Your task to perform on an android device: Show the shopping cart on ebay. Add razer nari to the cart on ebay Image 0: 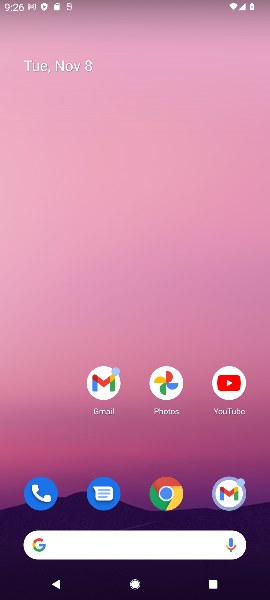
Step 0: click (171, 496)
Your task to perform on an android device: Show the shopping cart on ebay. Add razer nari to the cart on ebay Image 1: 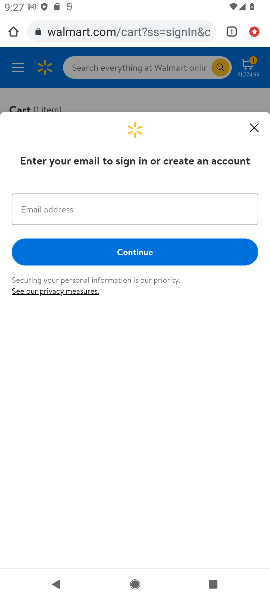
Step 1: click (112, 34)
Your task to perform on an android device: Show the shopping cart on ebay. Add razer nari to the cart on ebay Image 2: 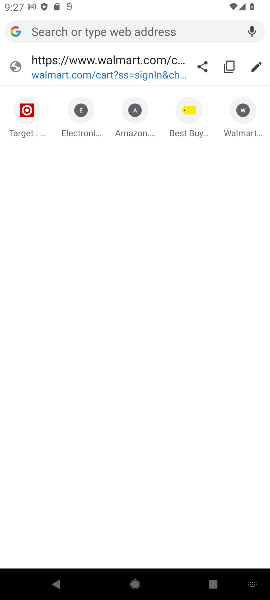
Step 2: type "ebay.com"
Your task to perform on an android device: Show the shopping cart on ebay. Add razer nari to the cart on ebay Image 3: 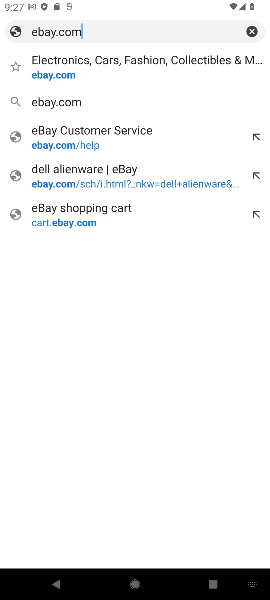
Step 3: click (54, 78)
Your task to perform on an android device: Show the shopping cart on ebay. Add razer nari to the cart on ebay Image 4: 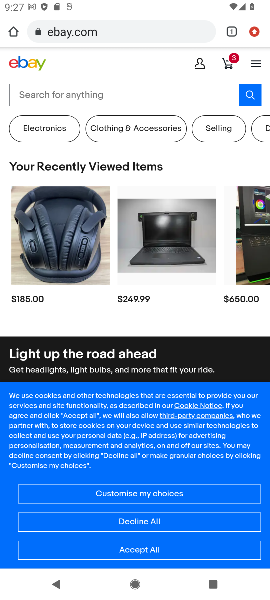
Step 4: click (234, 64)
Your task to perform on an android device: Show the shopping cart on ebay. Add razer nari to the cart on ebay Image 5: 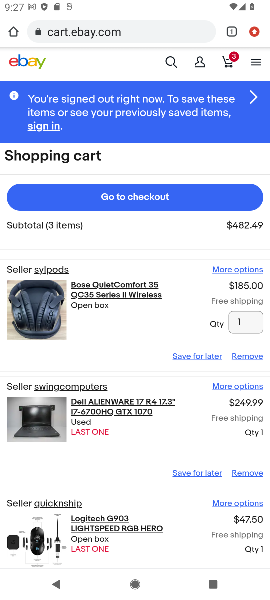
Step 5: click (167, 58)
Your task to perform on an android device: Show the shopping cart on ebay. Add razer nari to the cart on ebay Image 6: 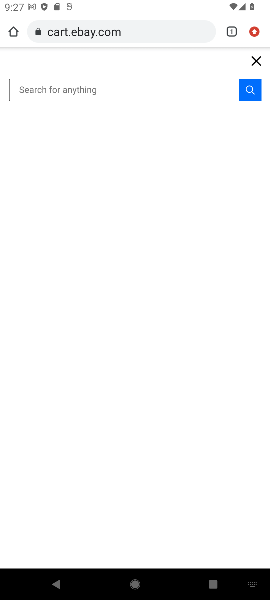
Step 6: type "razer nari"
Your task to perform on an android device: Show the shopping cart on ebay. Add razer nari to the cart on ebay Image 7: 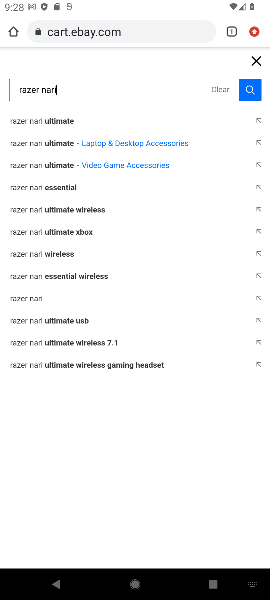
Step 7: click (255, 94)
Your task to perform on an android device: Show the shopping cart on ebay. Add razer nari to the cart on ebay Image 8: 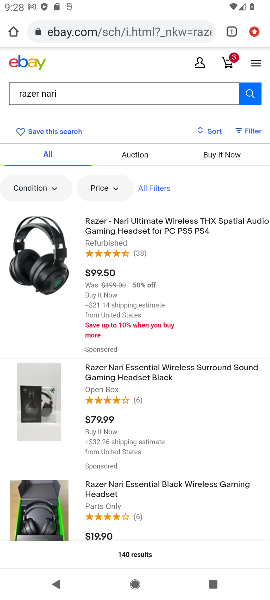
Step 8: click (46, 270)
Your task to perform on an android device: Show the shopping cart on ebay. Add razer nari to the cart on ebay Image 9: 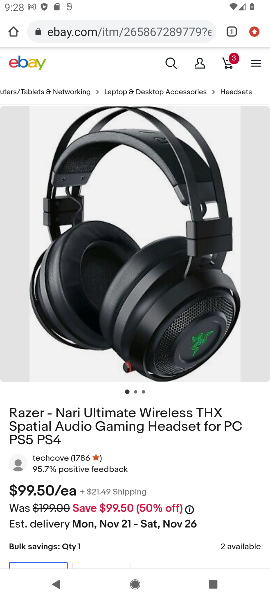
Step 9: drag from (121, 440) to (130, 221)
Your task to perform on an android device: Show the shopping cart on ebay. Add razer nari to the cart on ebay Image 10: 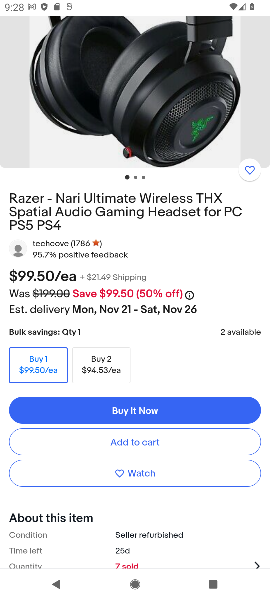
Step 10: click (137, 437)
Your task to perform on an android device: Show the shopping cart on ebay. Add razer nari to the cart on ebay Image 11: 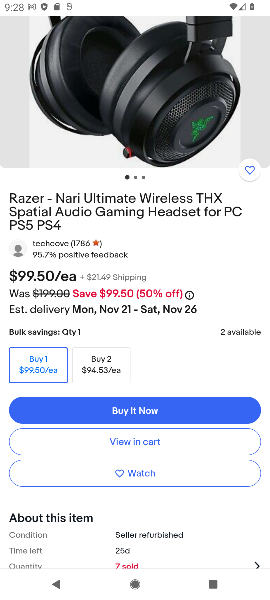
Step 11: task complete